Your task to perform on an android device: find snoozed emails in the gmail app Image 0: 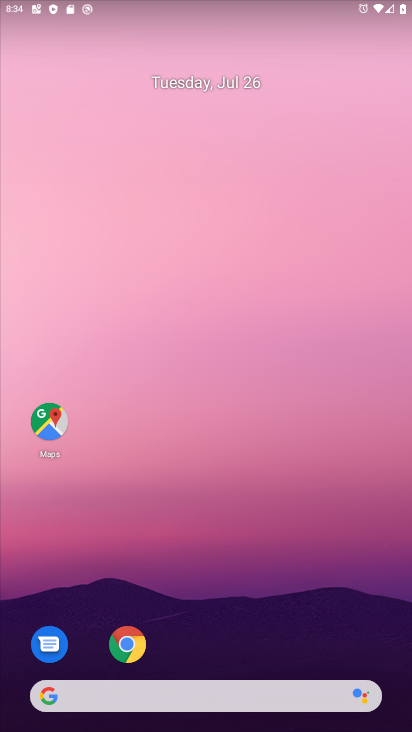
Step 0: drag from (242, 632) to (237, 244)
Your task to perform on an android device: find snoozed emails in the gmail app Image 1: 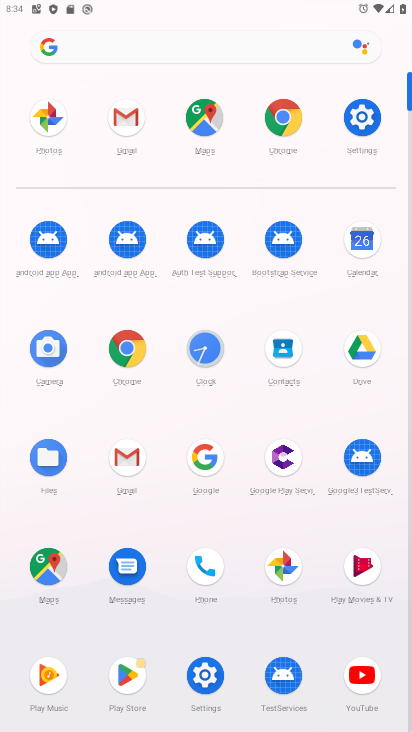
Step 1: click (127, 447)
Your task to perform on an android device: find snoozed emails in the gmail app Image 2: 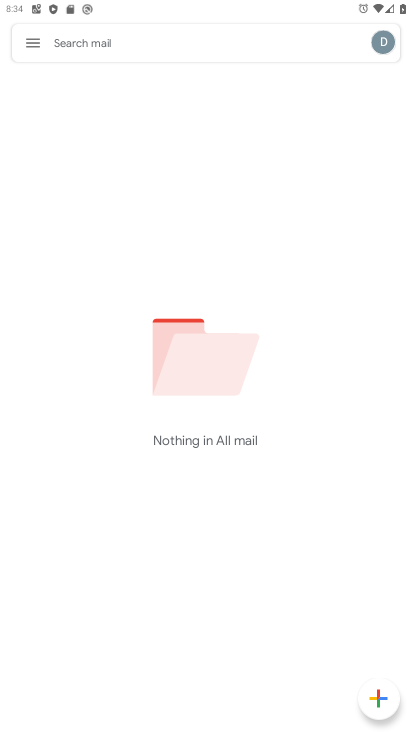
Step 2: click (27, 41)
Your task to perform on an android device: find snoozed emails in the gmail app Image 3: 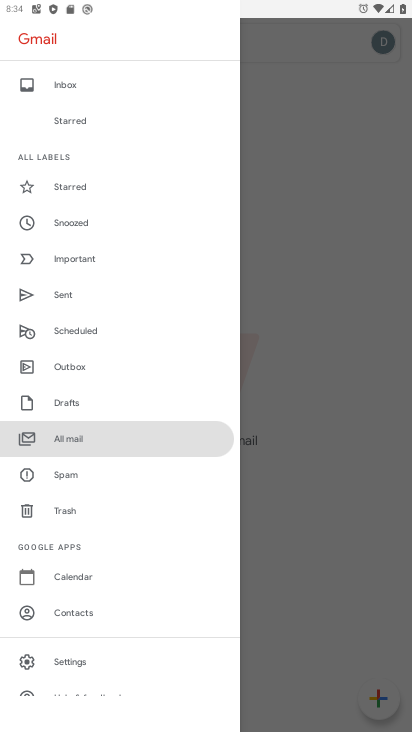
Step 3: click (82, 224)
Your task to perform on an android device: find snoozed emails in the gmail app Image 4: 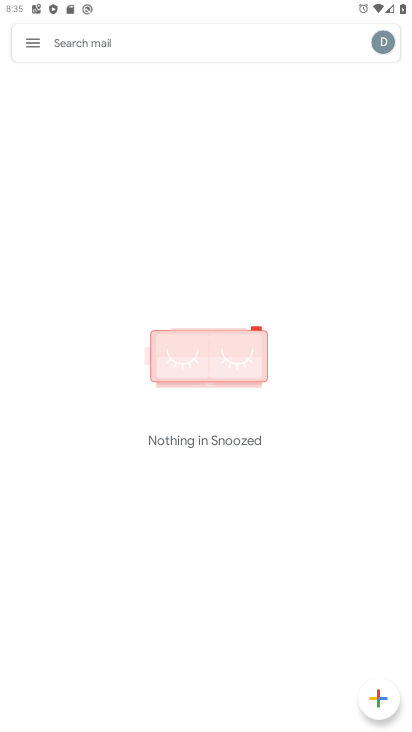
Step 4: task complete